Your task to perform on an android device: Go to Google maps Image 0: 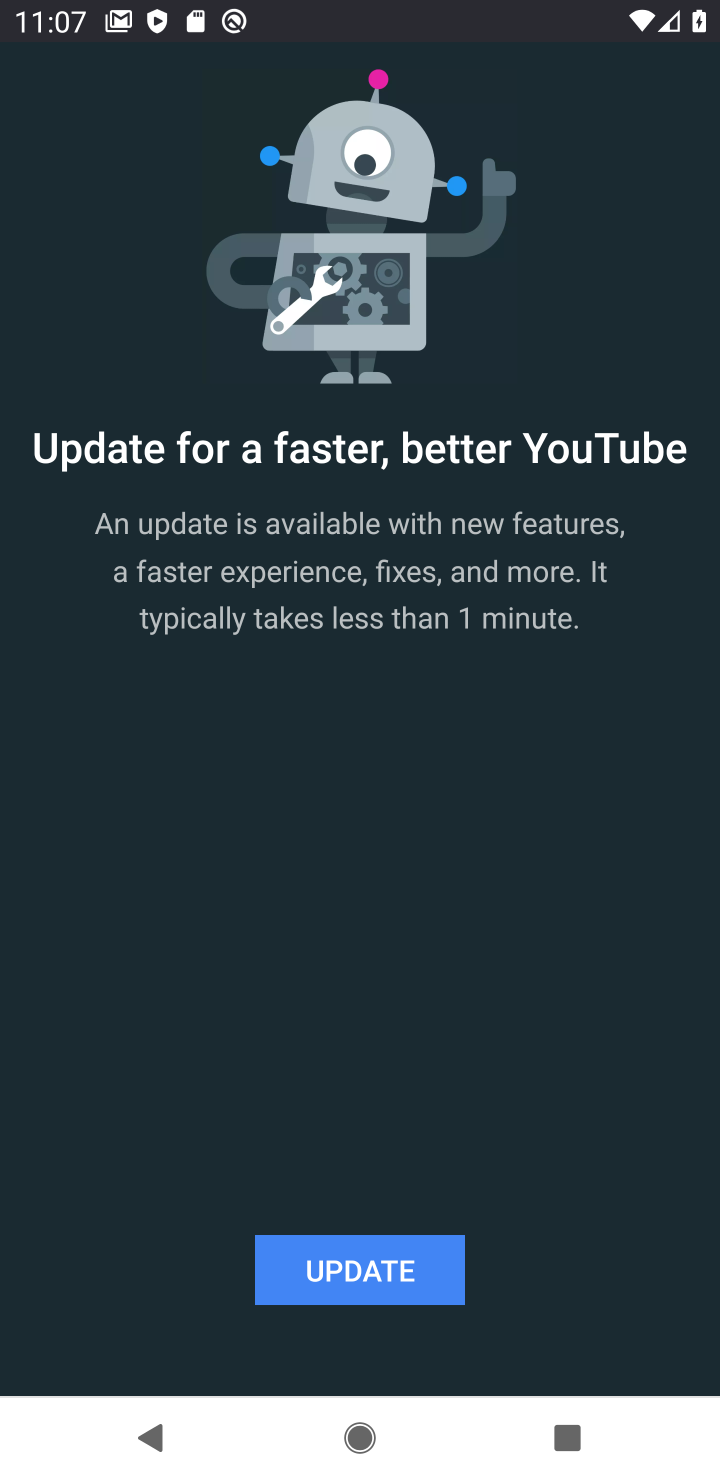
Step 0: press back button
Your task to perform on an android device: Go to Google maps Image 1: 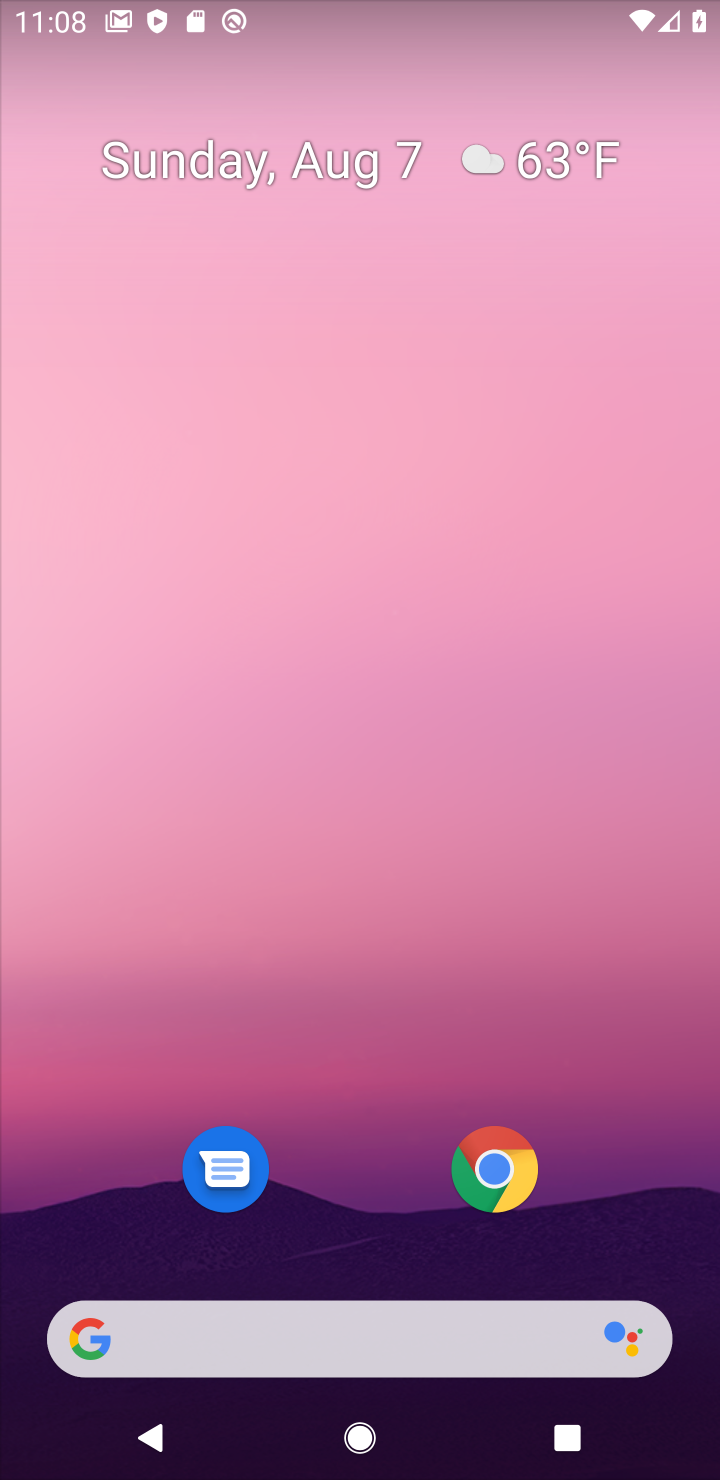
Step 1: drag from (395, 1269) to (466, 29)
Your task to perform on an android device: Go to Google maps Image 2: 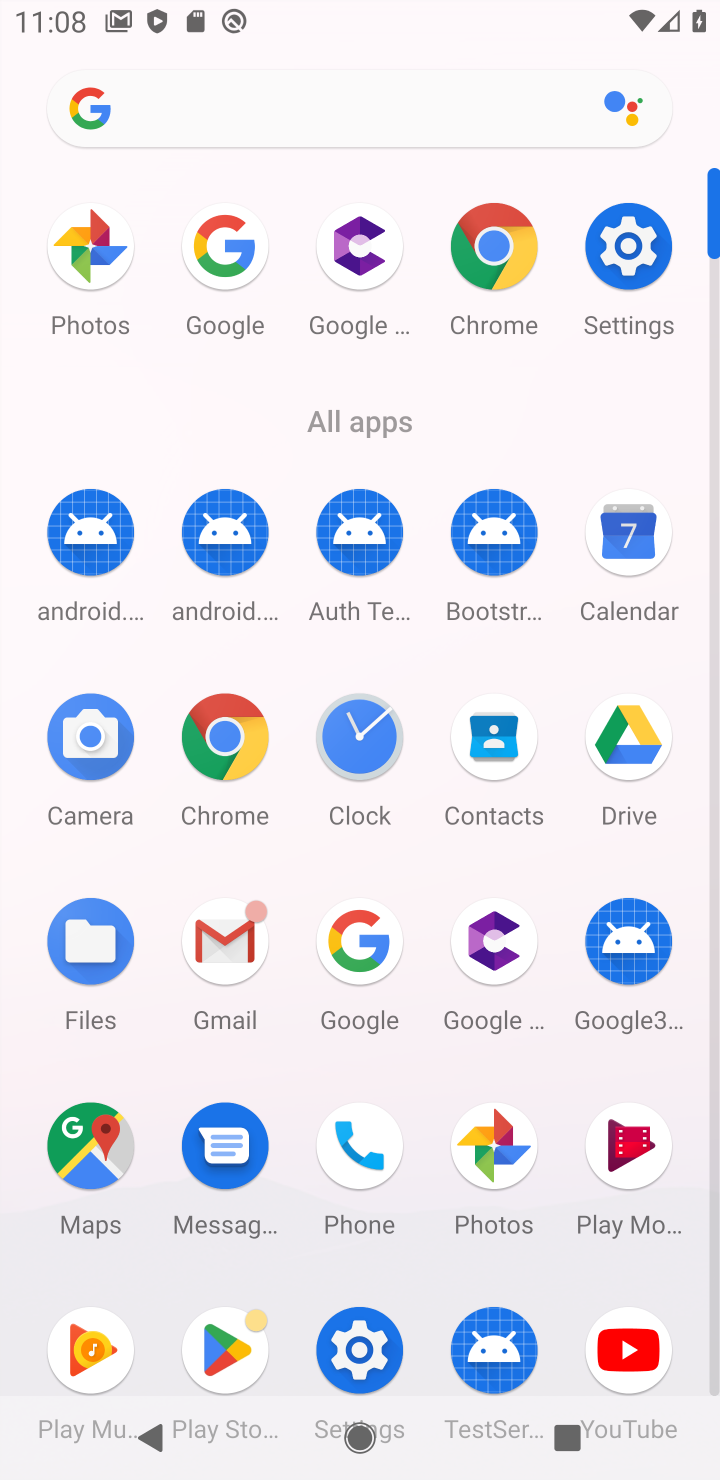
Step 2: click (65, 1158)
Your task to perform on an android device: Go to Google maps Image 3: 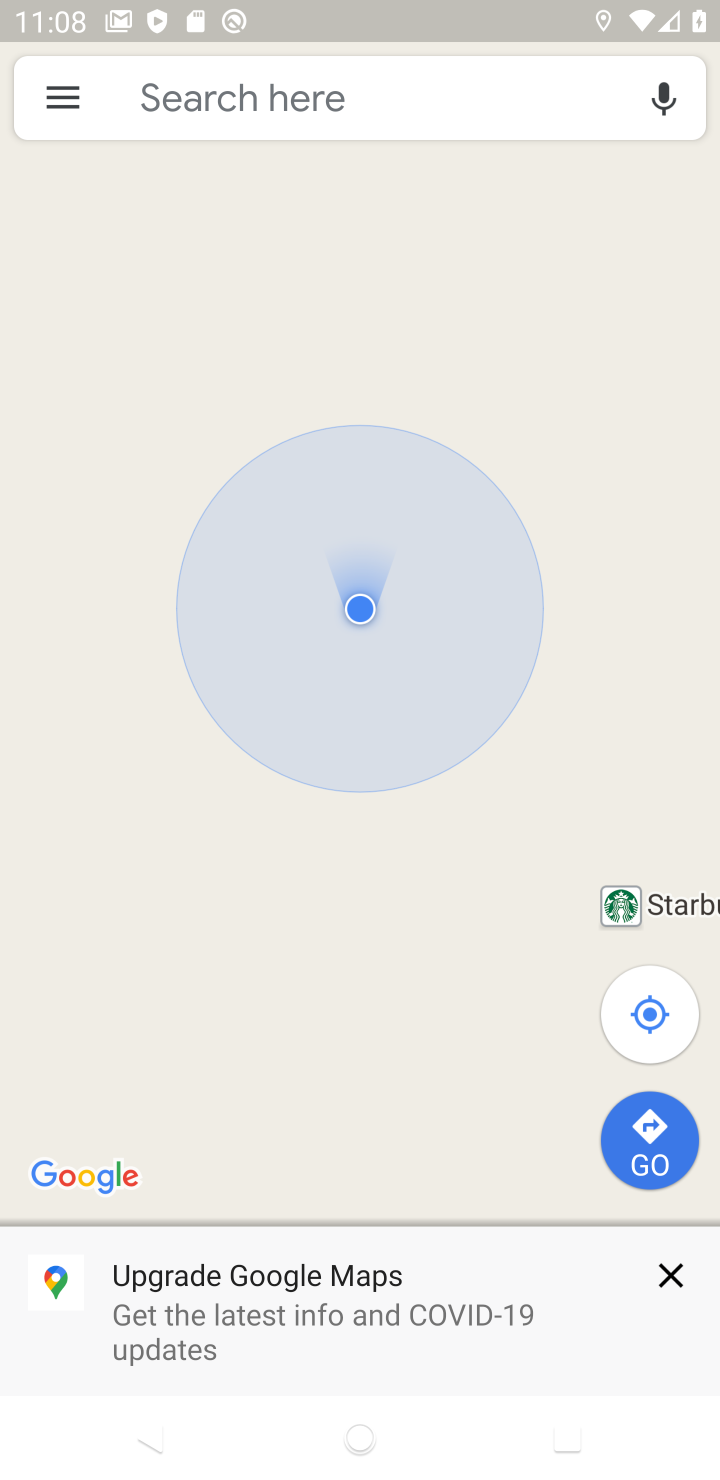
Step 3: task complete